Your task to perform on an android device: turn off location Image 0: 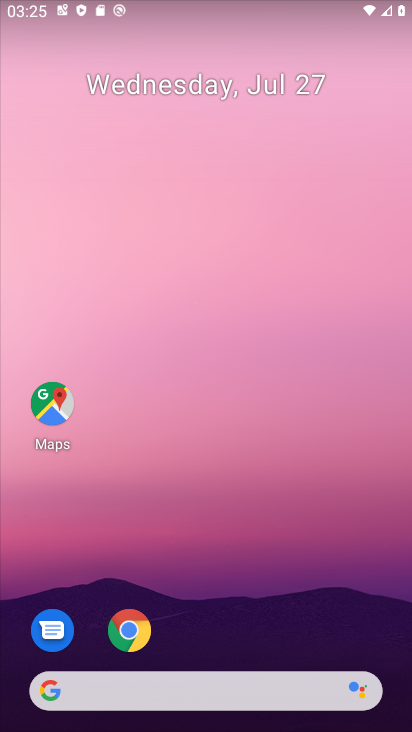
Step 0: drag from (170, 572) to (393, 59)
Your task to perform on an android device: turn off location Image 1: 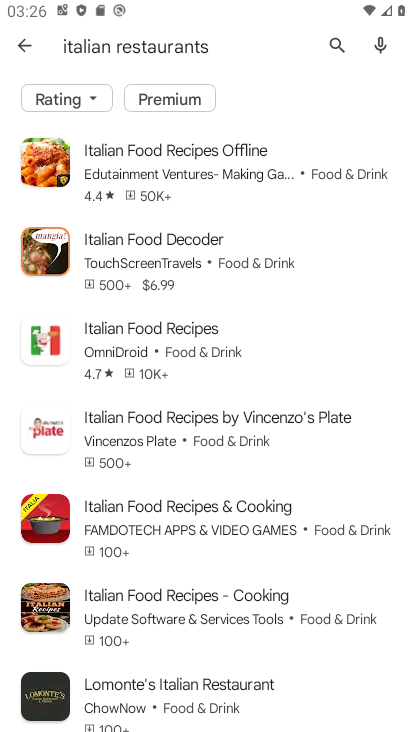
Step 1: click (65, 97)
Your task to perform on an android device: turn off location Image 2: 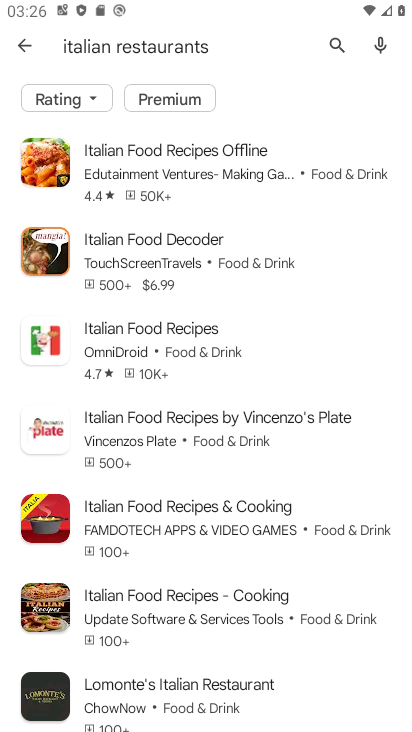
Step 2: click (15, 51)
Your task to perform on an android device: turn off location Image 3: 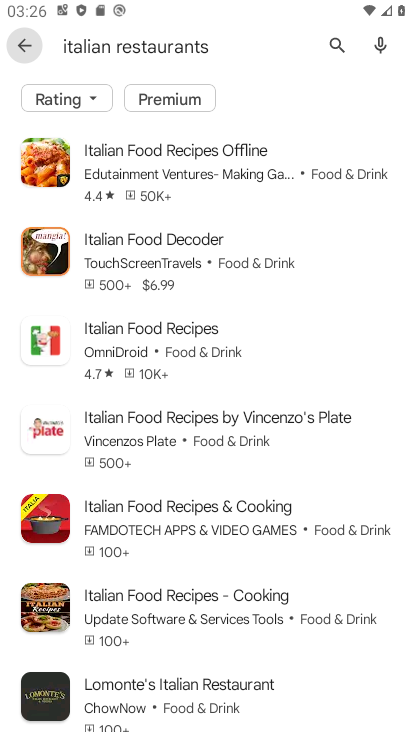
Step 3: click (15, 50)
Your task to perform on an android device: turn off location Image 4: 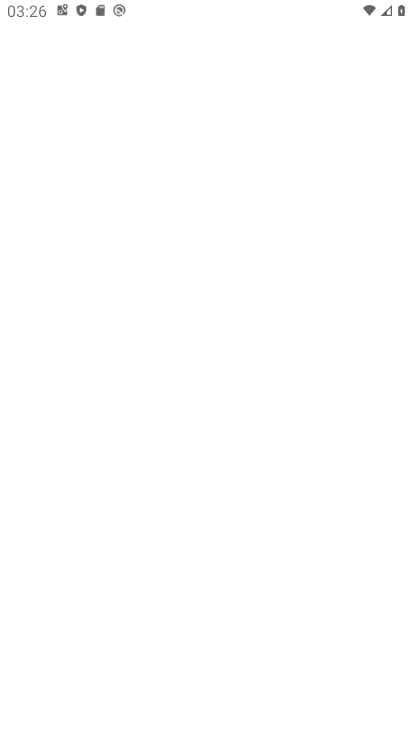
Step 4: click (15, 50)
Your task to perform on an android device: turn off location Image 5: 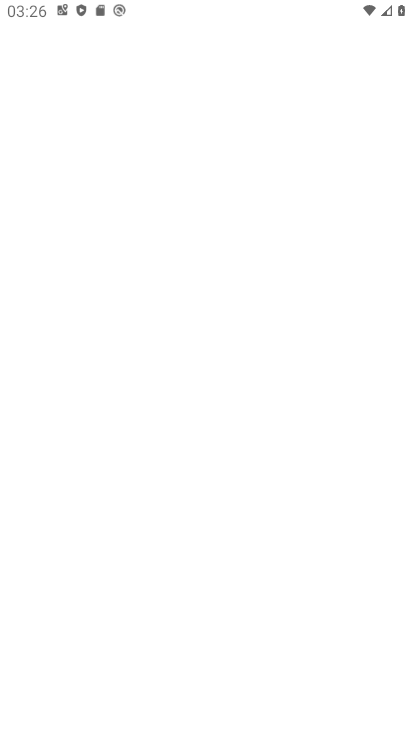
Step 5: click (14, 41)
Your task to perform on an android device: turn off location Image 6: 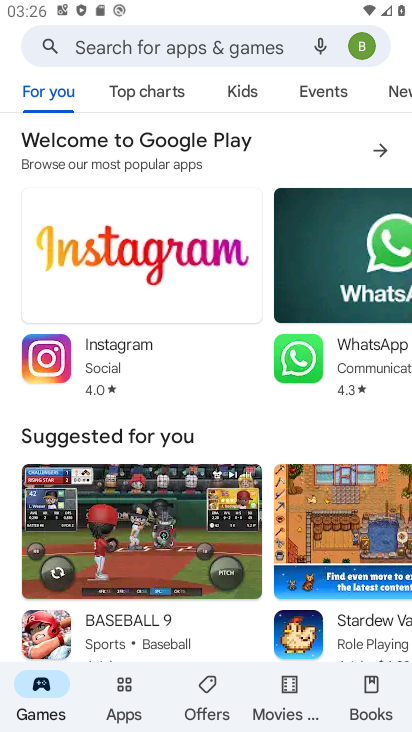
Step 6: press back button
Your task to perform on an android device: turn off location Image 7: 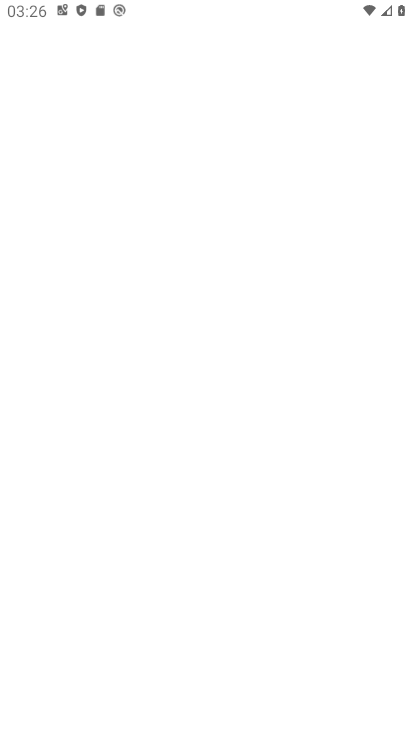
Step 7: press back button
Your task to perform on an android device: turn off location Image 8: 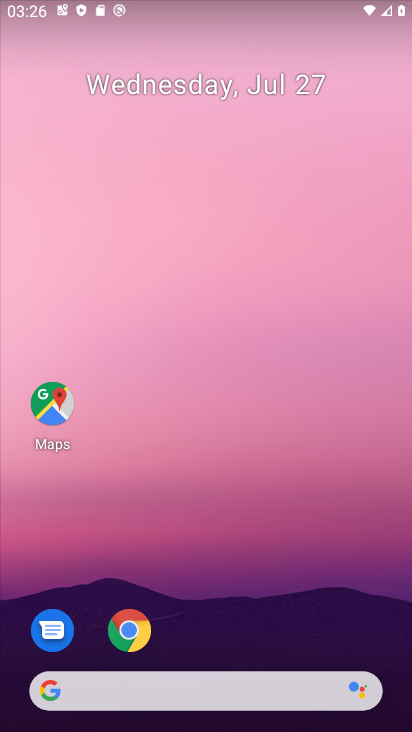
Step 8: drag from (300, 574) to (168, 77)
Your task to perform on an android device: turn off location Image 9: 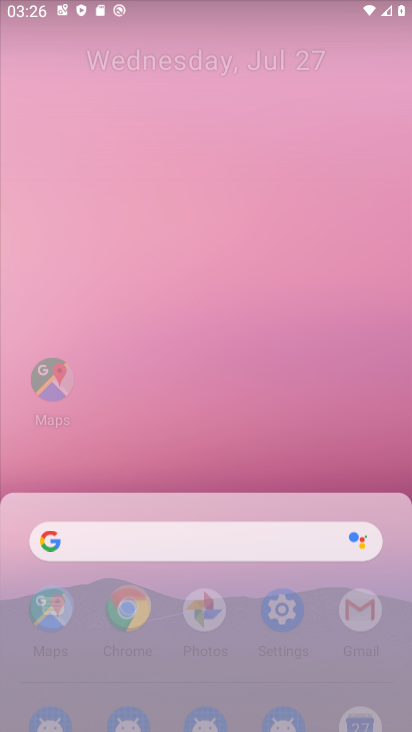
Step 9: drag from (252, 502) to (167, 113)
Your task to perform on an android device: turn off location Image 10: 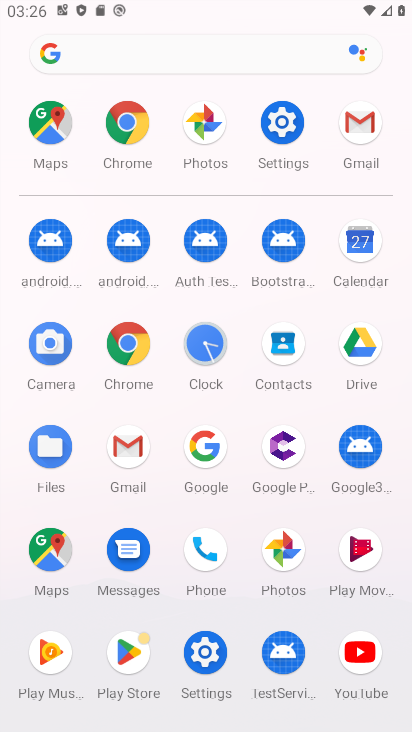
Step 10: click (271, 115)
Your task to perform on an android device: turn off location Image 11: 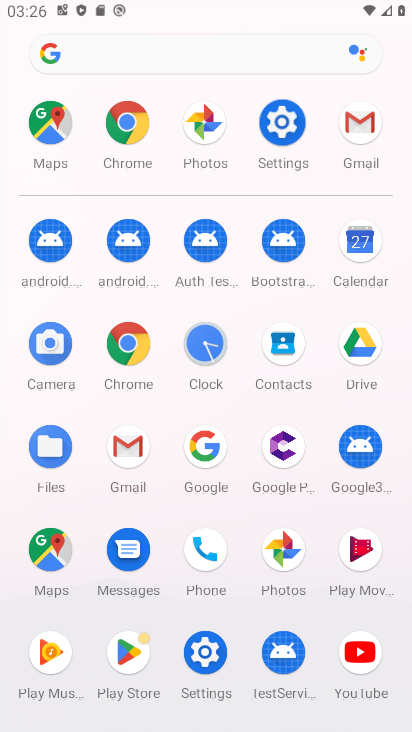
Step 11: click (272, 121)
Your task to perform on an android device: turn off location Image 12: 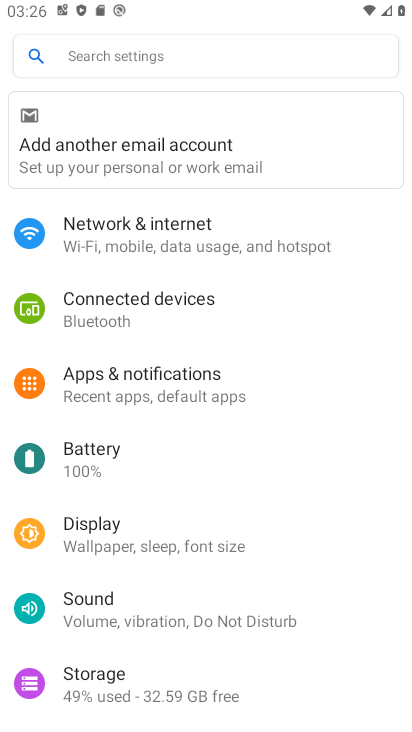
Step 12: drag from (138, 627) to (75, 253)
Your task to perform on an android device: turn off location Image 13: 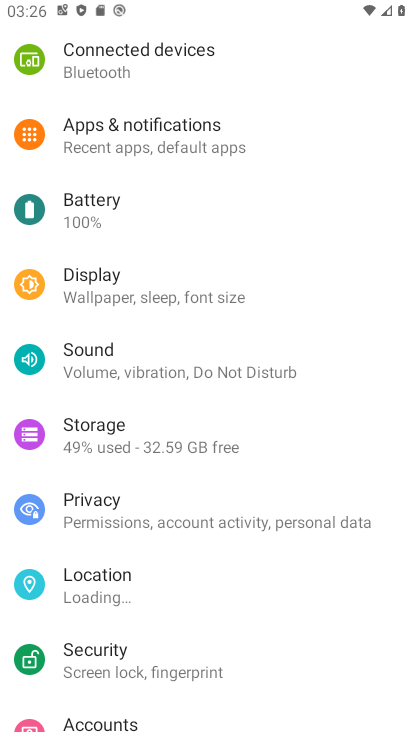
Step 13: drag from (162, 497) to (143, 208)
Your task to perform on an android device: turn off location Image 14: 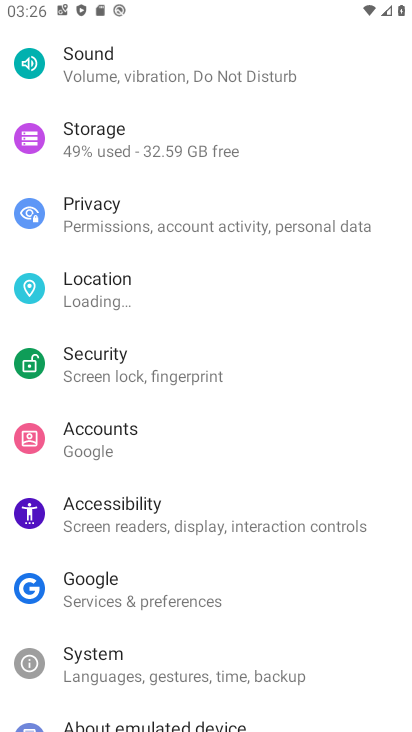
Step 14: drag from (200, 427) to (166, 238)
Your task to perform on an android device: turn off location Image 15: 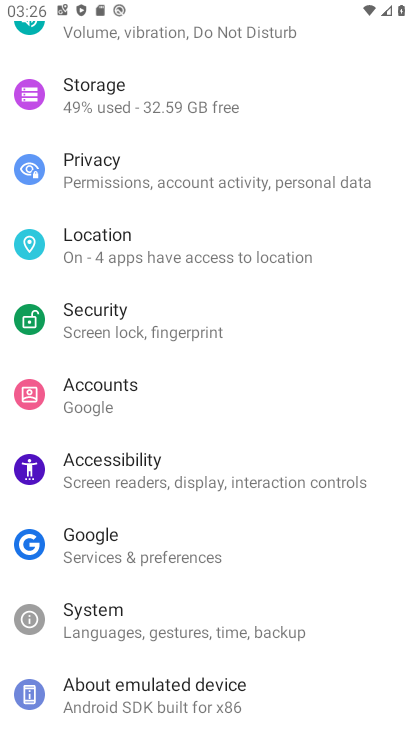
Step 15: click (102, 258)
Your task to perform on an android device: turn off location Image 16: 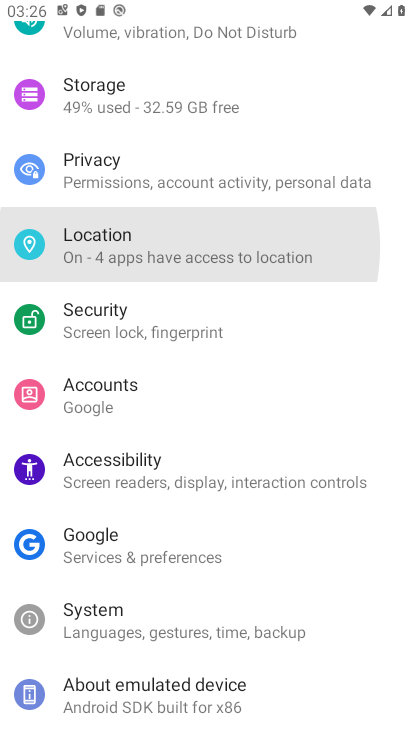
Step 16: click (101, 257)
Your task to perform on an android device: turn off location Image 17: 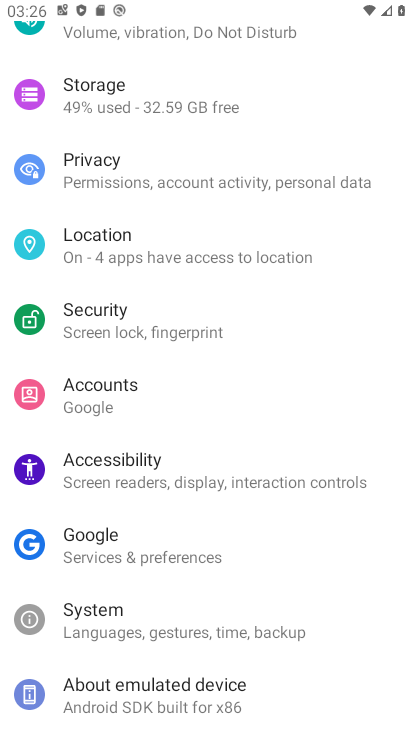
Step 17: click (102, 256)
Your task to perform on an android device: turn off location Image 18: 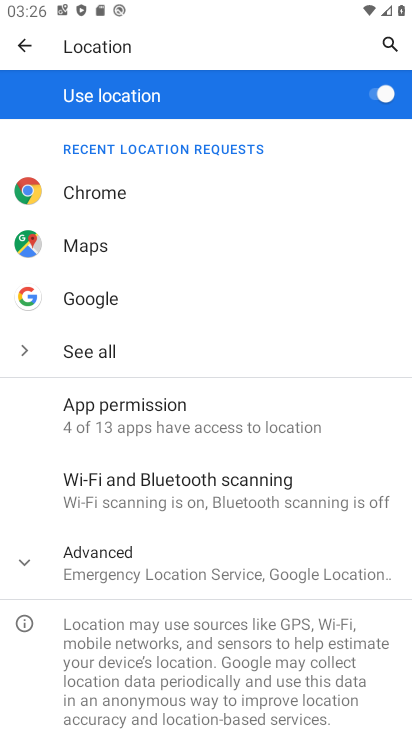
Step 18: click (380, 98)
Your task to perform on an android device: turn off location Image 19: 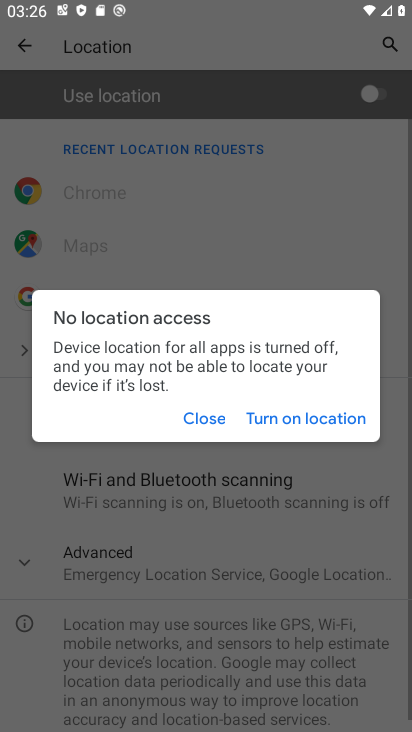
Step 19: task complete